Your task to perform on an android device: check android version Image 0: 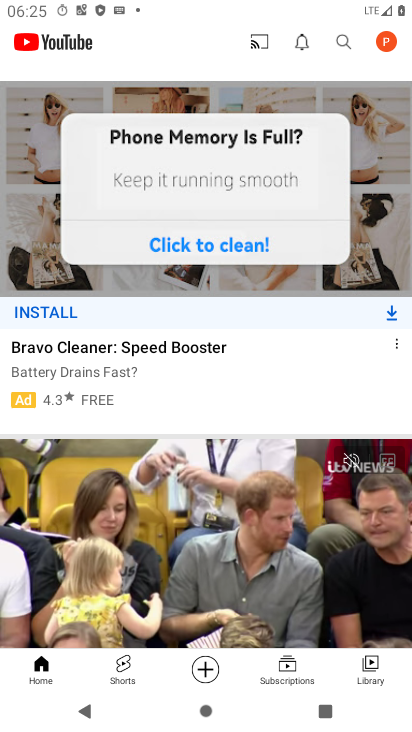
Step 0: press home button
Your task to perform on an android device: check android version Image 1: 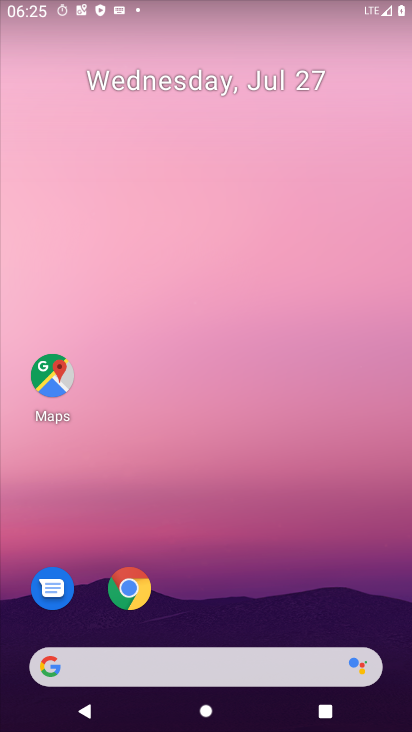
Step 1: drag from (194, 622) to (270, 6)
Your task to perform on an android device: check android version Image 2: 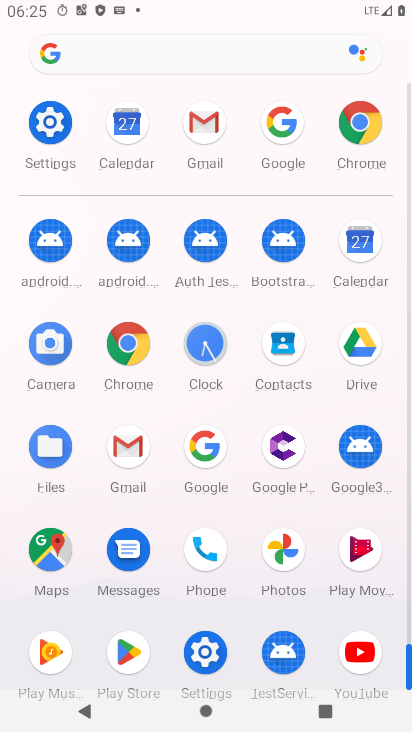
Step 2: click (46, 109)
Your task to perform on an android device: check android version Image 3: 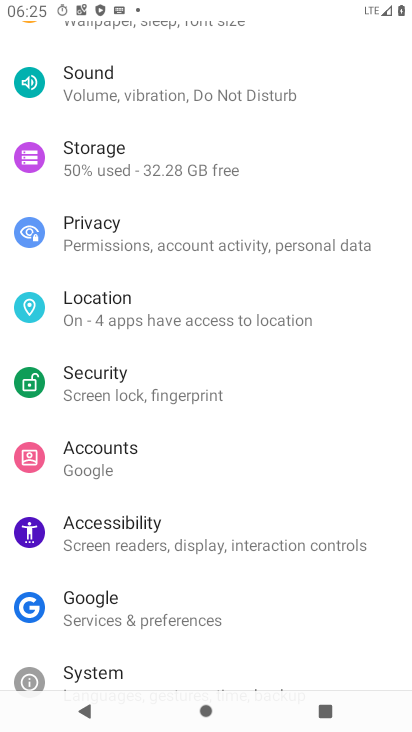
Step 3: click (75, 699)
Your task to perform on an android device: check android version Image 4: 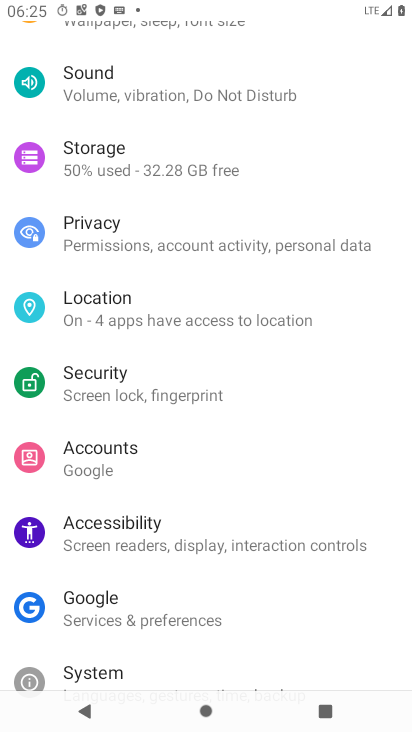
Step 4: drag from (95, 667) to (192, 401)
Your task to perform on an android device: check android version Image 5: 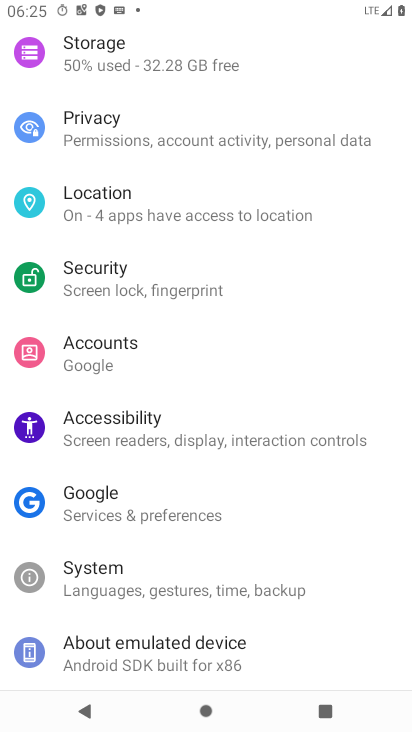
Step 5: click (107, 647)
Your task to perform on an android device: check android version Image 6: 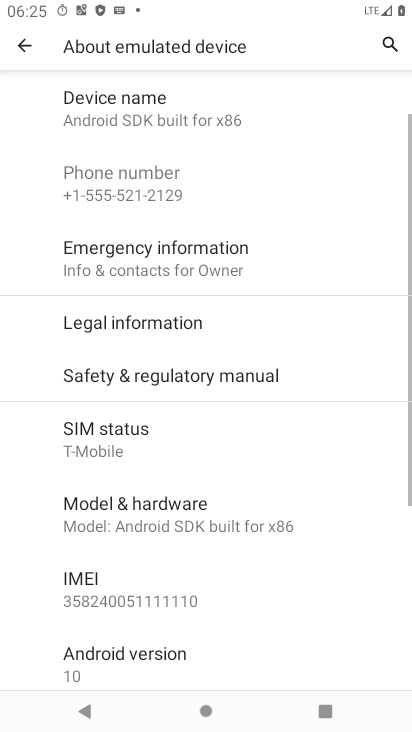
Step 6: click (111, 659)
Your task to perform on an android device: check android version Image 7: 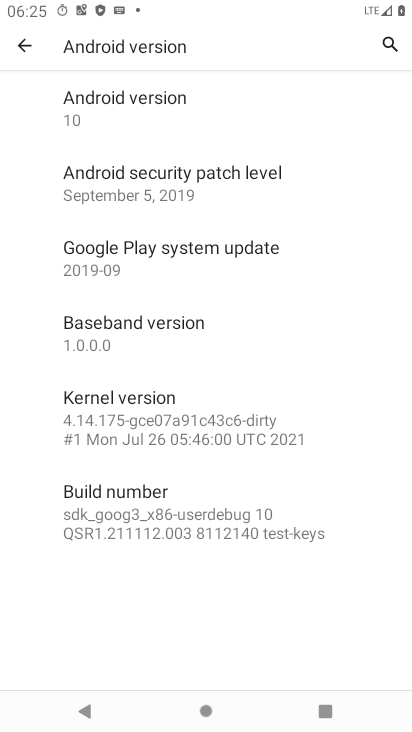
Step 7: task complete